Your task to perform on an android device: Go to CNN.com Image 0: 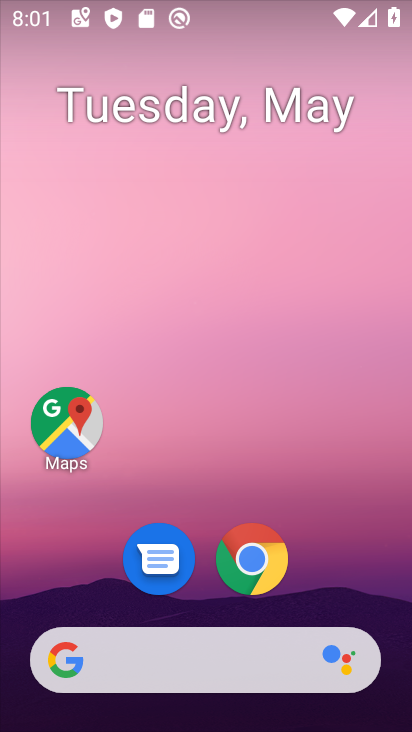
Step 0: drag from (341, 423) to (356, 9)
Your task to perform on an android device: Go to CNN.com Image 1: 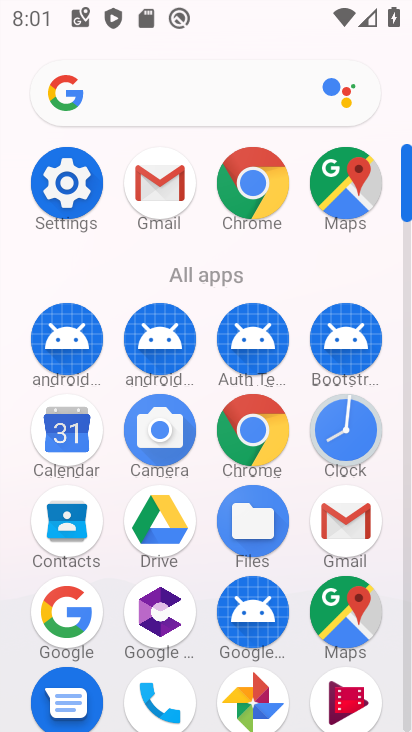
Step 1: click (258, 157)
Your task to perform on an android device: Go to CNN.com Image 2: 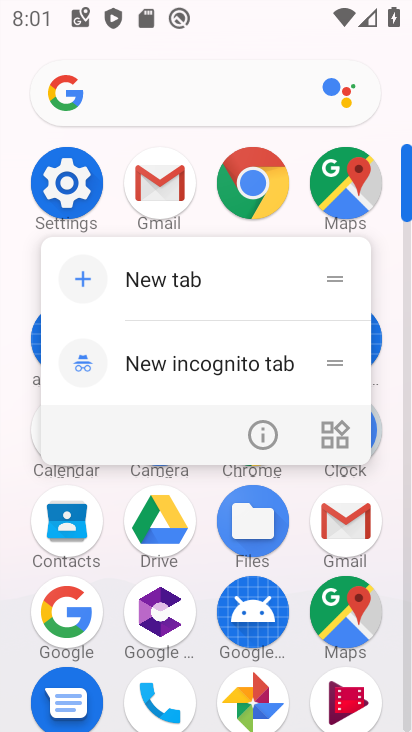
Step 2: click (253, 171)
Your task to perform on an android device: Go to CNN.com Image 3: 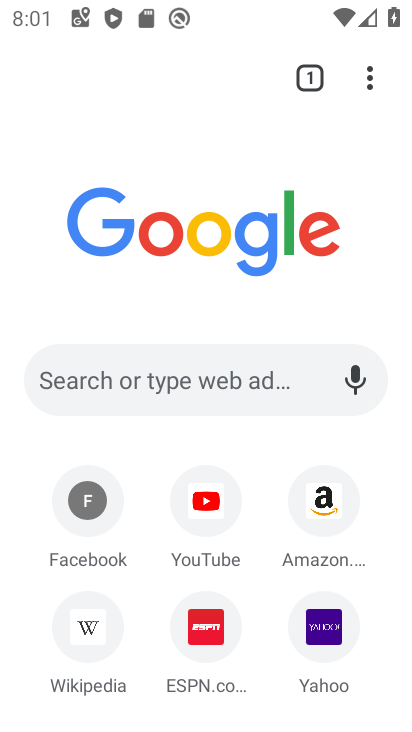
Step 3: drag from (369, 584) to (370, 362)
Your task to perform on an android device: Go to CNN.com Image 4: 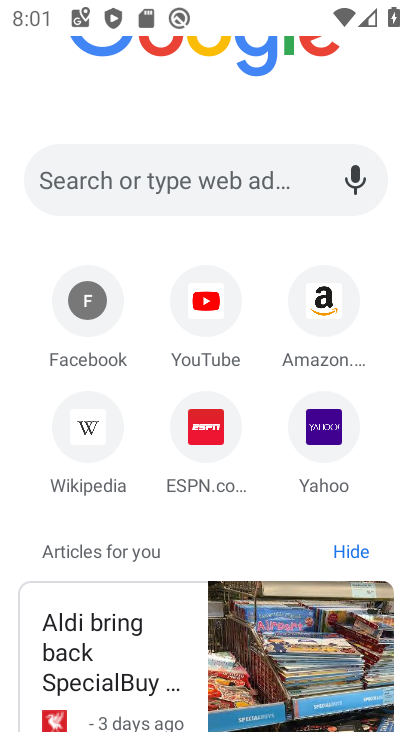
Step 4: click (243, 192)
Your task to perform on an android device: Go to CNN.com Image 5: 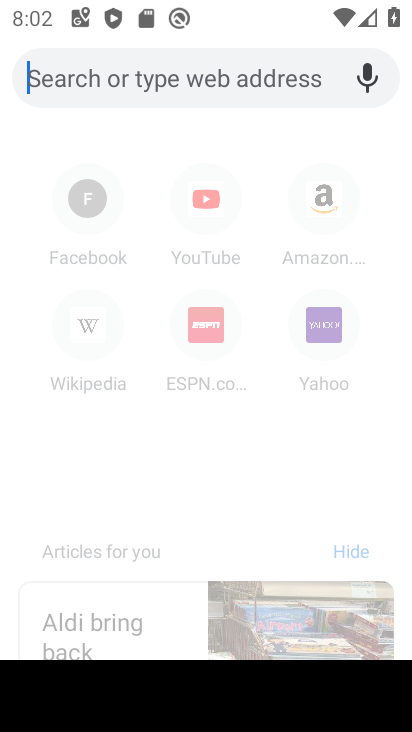
Step 5: type "cnn"
Your task to perform on an android device: Go to CNN.com Image 6: 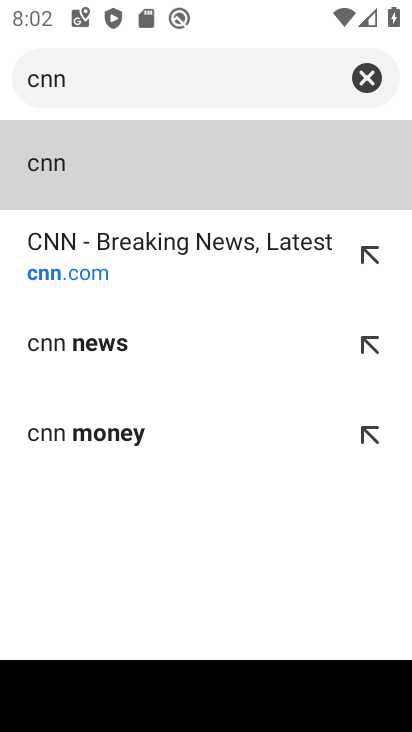
Step 6: click (84, 250)
Your task to perform on an android device: Go to CNN.com Image 7: 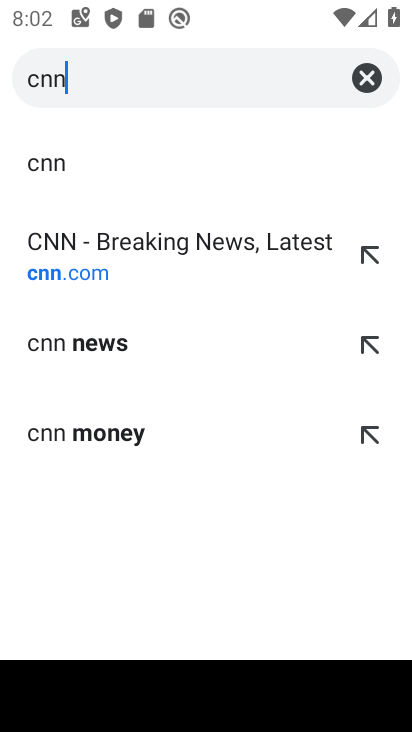
Step 7: click (71, 265)
Your task to perform on an android device: Go to CNN.com Image 8: 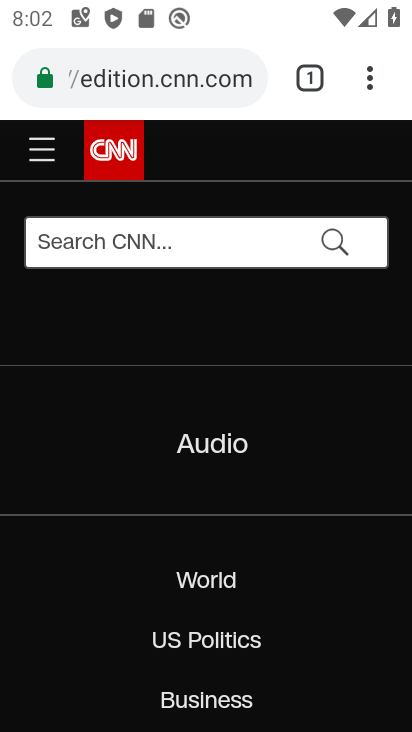
Step 8: task complete